Your task to perform on an android device: allow cookies in the chrome app Image 0: 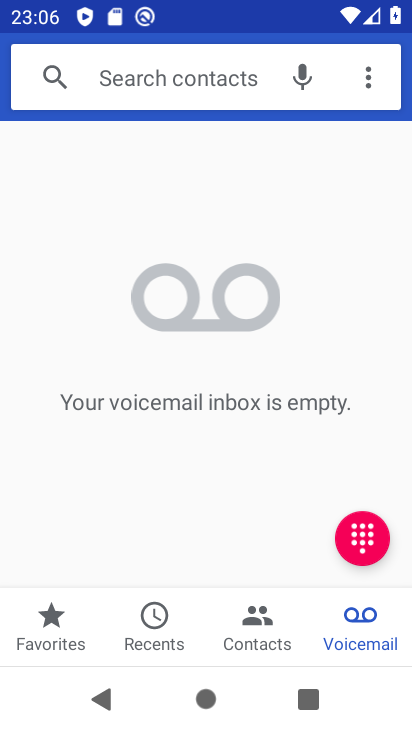
Step 0: press home button
Your task to perform on an android device: allow cookies in the chrome app Image 1: 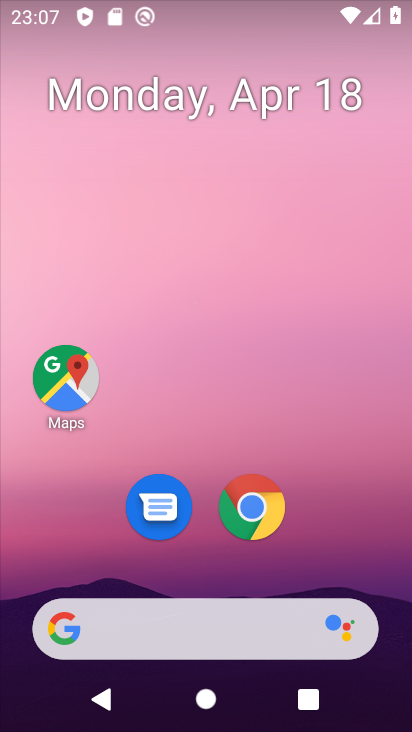
Step 1: click (247, 501)
Your task to perform on an android device: allow cookies in the chrome app Image 2: 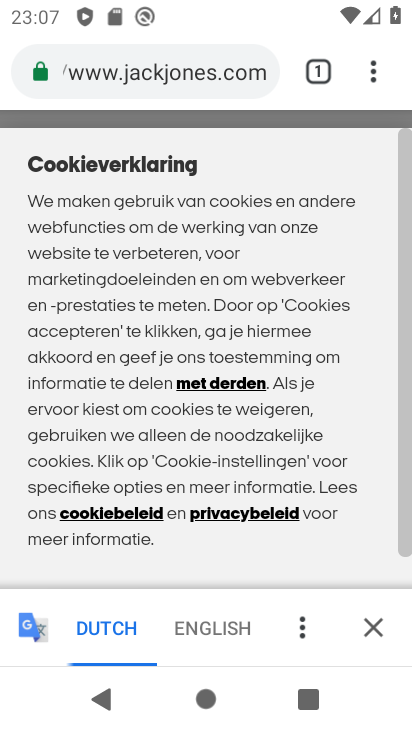
Step 2: click (372, 68)
Your task to perform on an android device: allow cookies in the chrome app Image 3: 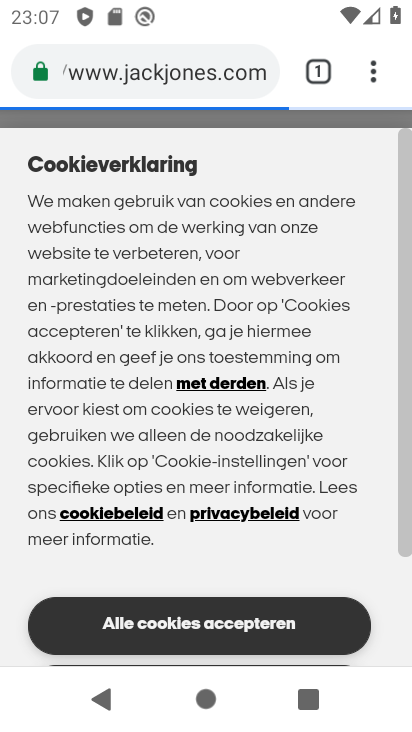
Step 3: click (374, 70)
Your task to perform on an android device: allow cookies in the chrome app Image 4: 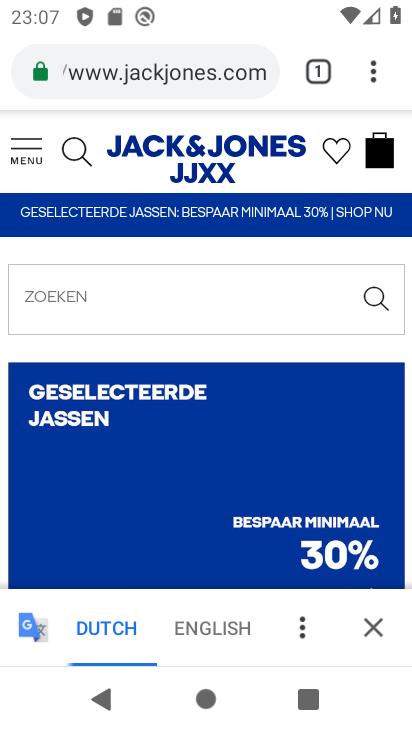
Step 4: click (374, 70)
Your task to perform on an android device: allow cookies in the chrome app Image 5: 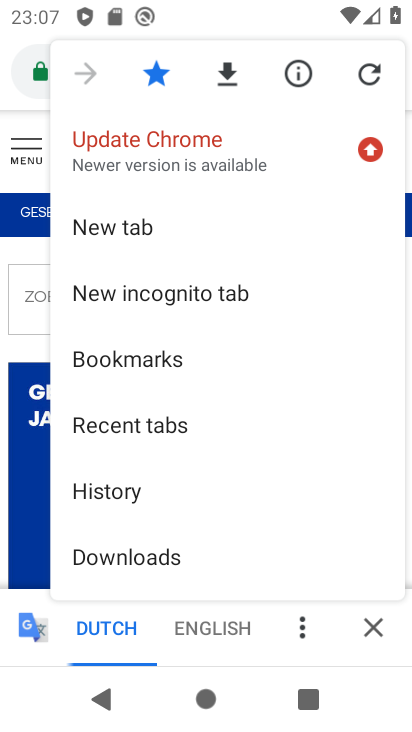
Step 5: drag from (222, 543) to (274, 162)
Your task to perform on an android device: allow cookies in the chrome app Image 6: 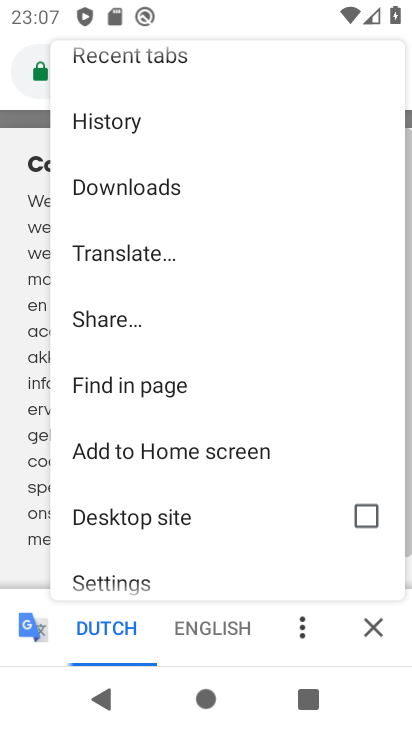
Step 6: drag from (210, 561) to (221, 252)
Your task to perform on an android device: allow cookies in the chrome app Image 7: 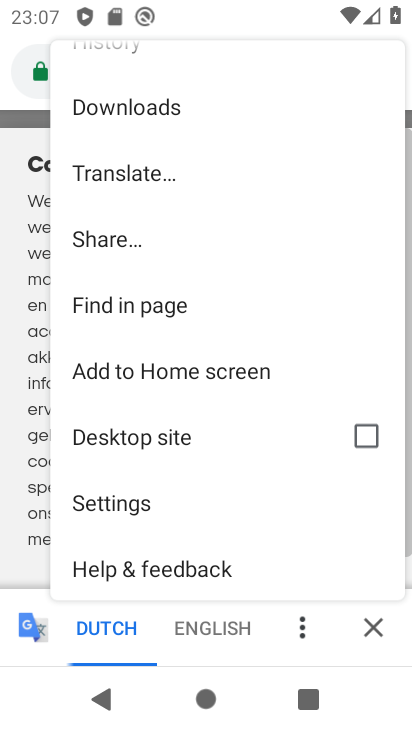
Step 7: click (169, 507)
Your task to perform on an android device: allow cookies in the chrome app Image 8: 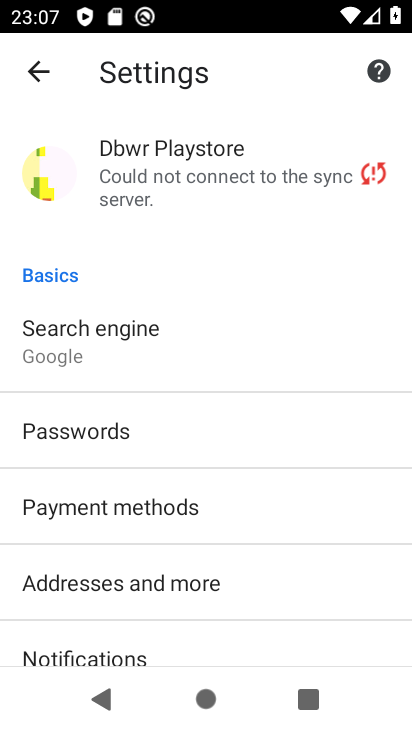
Step 8: drag from (283, 495) to (336, 194)
Your task to perform on an android device: allow cookies in the chrome app Image 9: 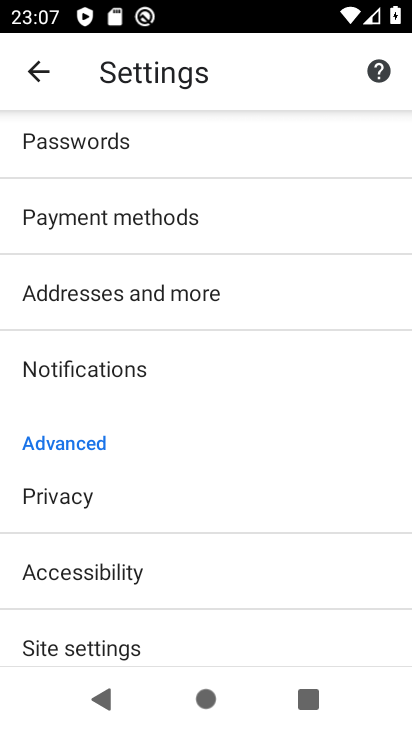
Step 9: click (233, 654)
Your task to perform on an android device: allow cookies in the chrome app Image 10: 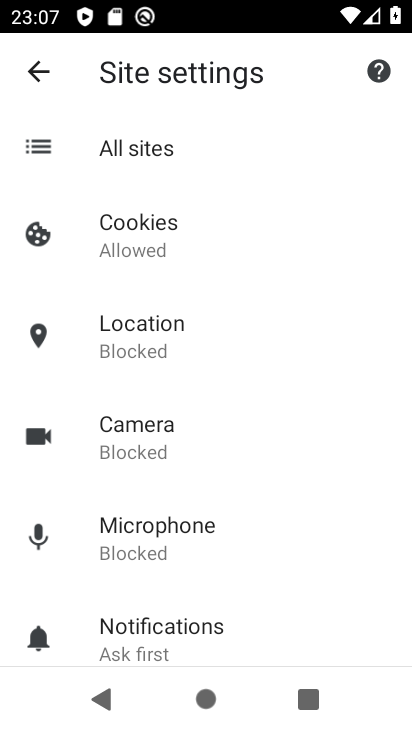
Step 10: click (248, 233)
Your task to perform on an android device: allow cookies in the chrome app Image 11: 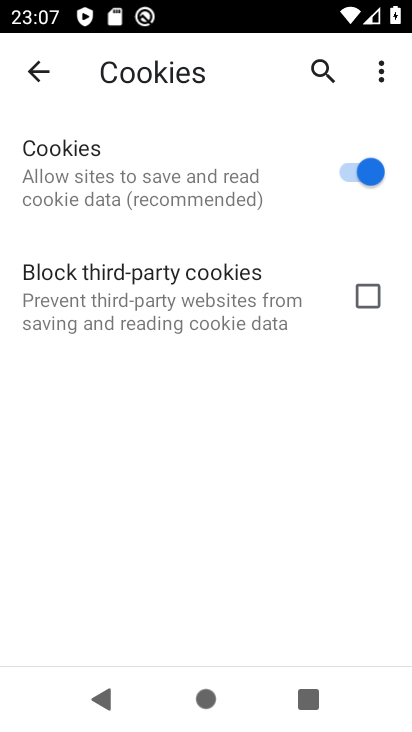
Step 11: task complete